Your task to perform on an android device: Open Wikipedia Image 0: 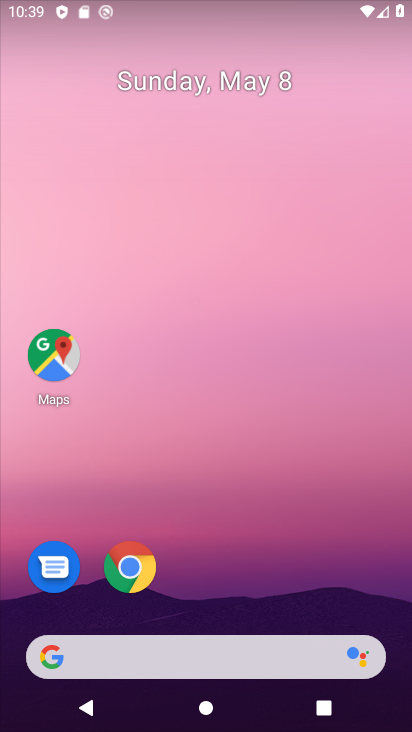
Step 0: click (132, 557)
Your task to perform on an android device: Open Wikipedia Image 1: 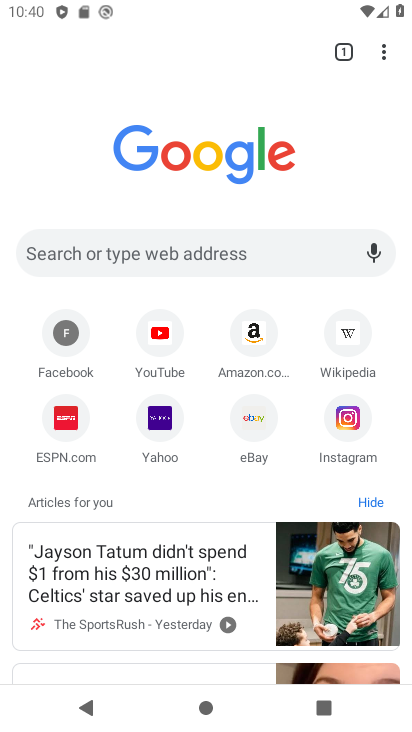
Step 1: click (344, 321)
Your task to perform on an android device: Open Wikipedia Image 2: 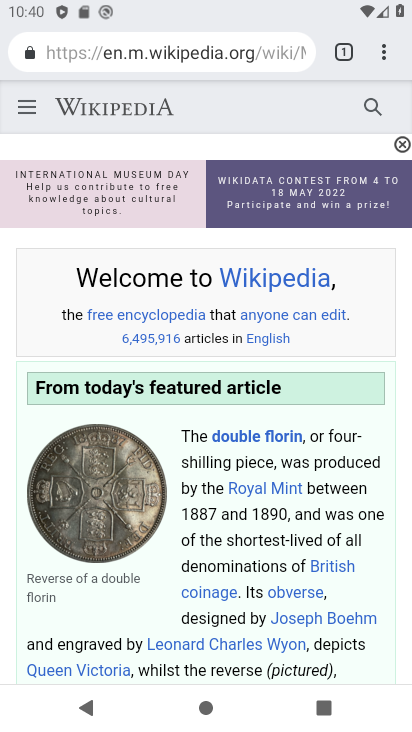
Step 2: task complete